Your task to perform on an android device: turn off improve location accuracy Image 0: 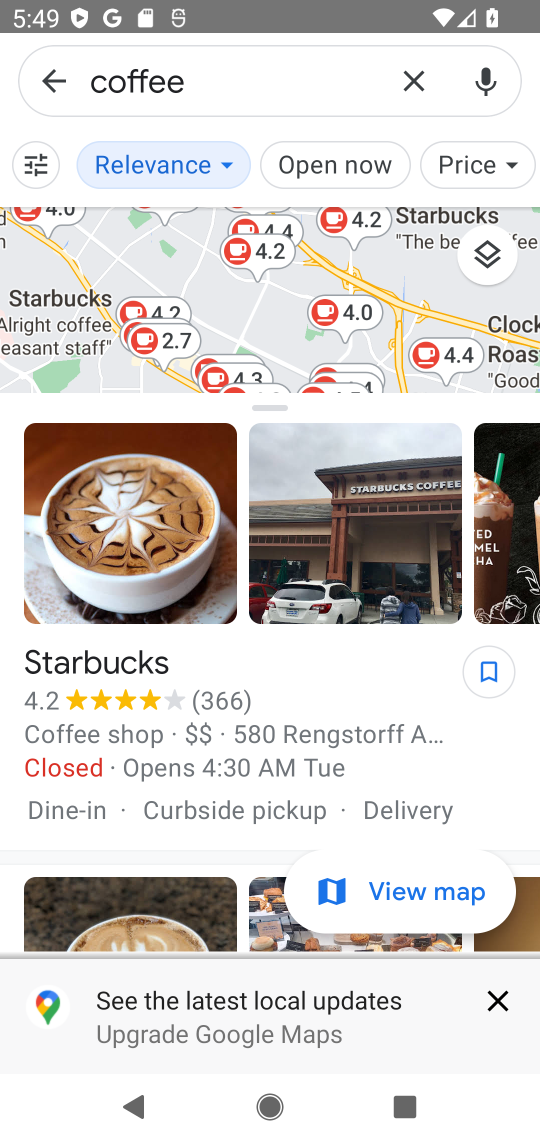
Step 0: press home button
Your task to perform on an android device: turn off improve location accuracy Image 1: 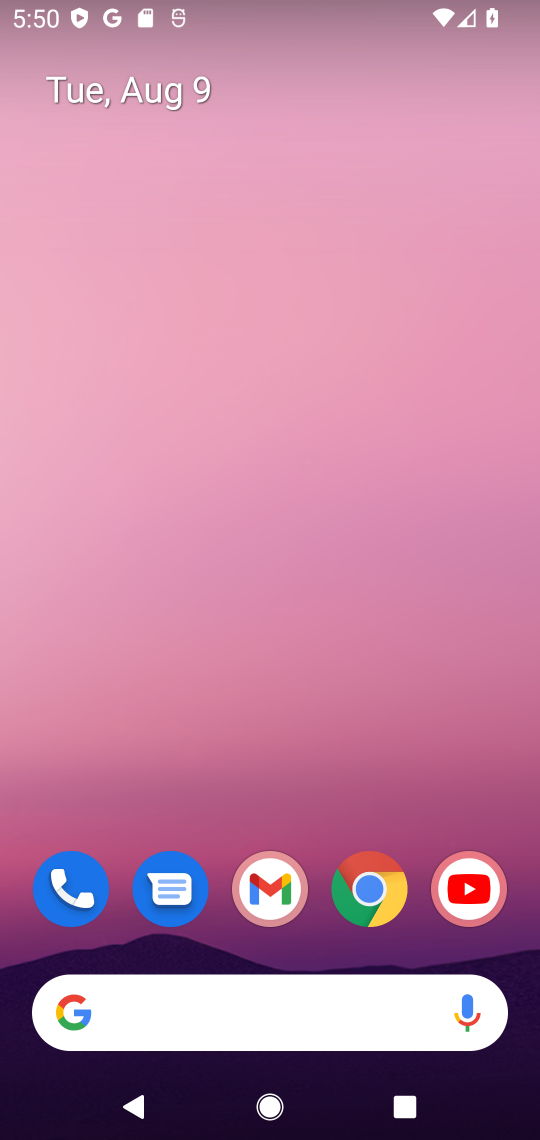
Step 1: drag from (245, 1011) to (275, 414)
Your task to perform on an android device: turn off improve location accuracy Image 2: 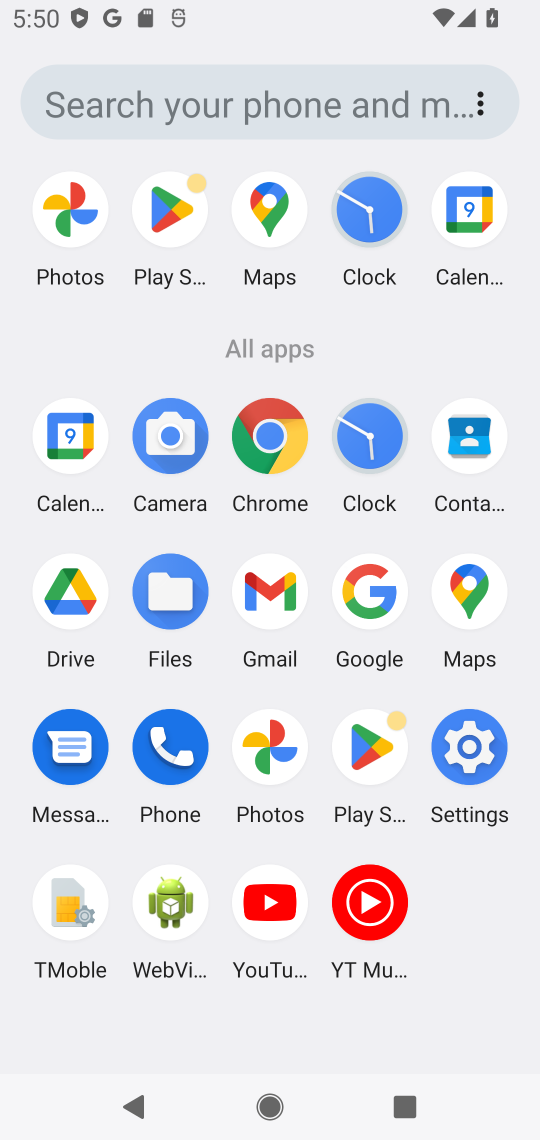
Step 2: click (450, 741)
Your task to perform on an android device: turn off improve location accuracy Image 3: 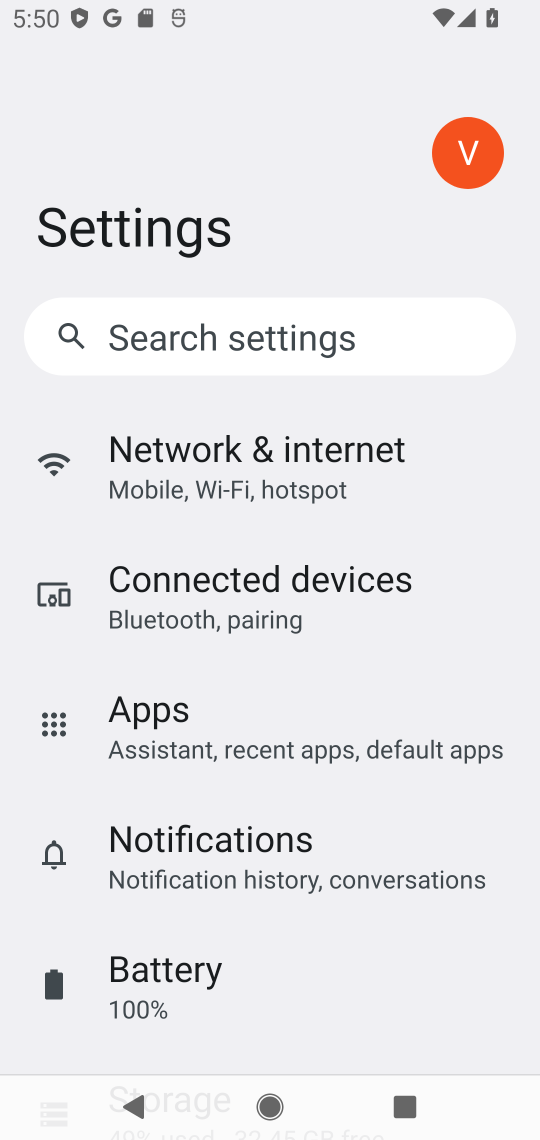
Step 3: drag from (282, 980) to (284, 158)
Your task to perform on an android device: turn off improve location accuracy Image 4: 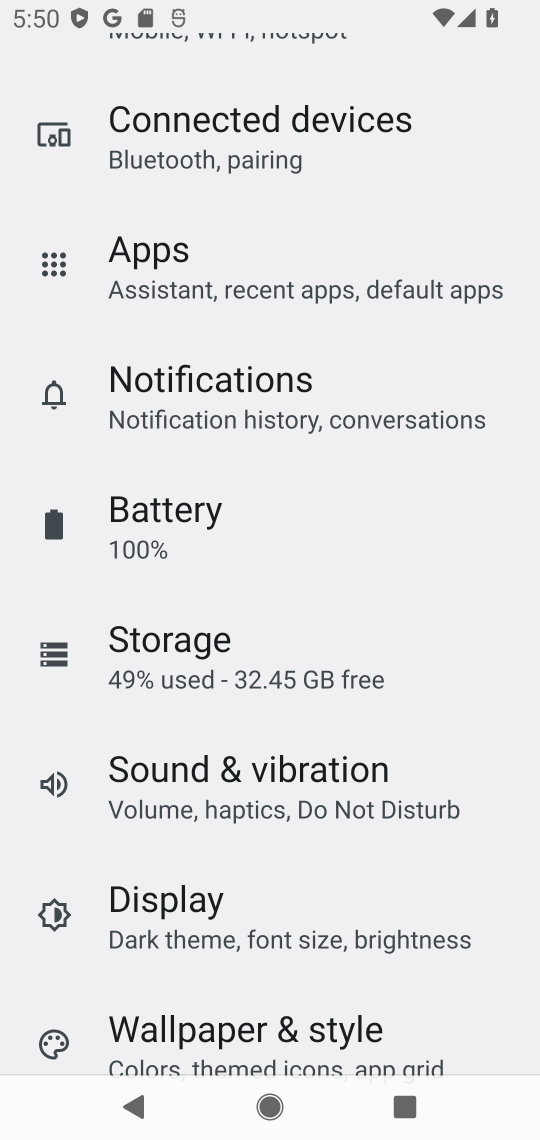
Step 4: drag from (238, 879) to (260, 2)
Your task to perform on an android device: turn off improve location accuracy Image 5: 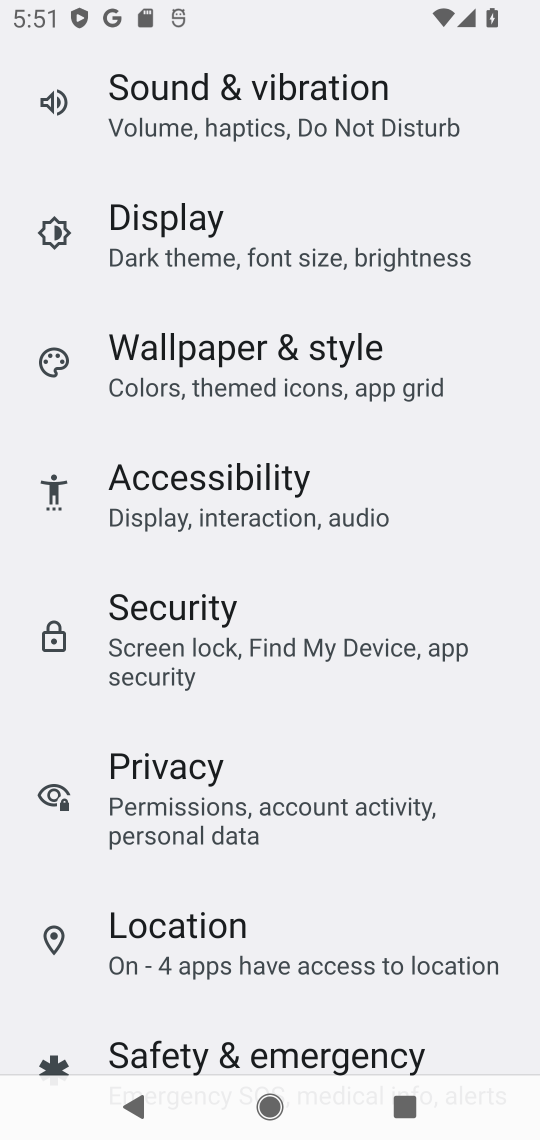
Step 5: click (253, 930)
Your task to perform on an android device: turn off improve location accuracy Image 6: 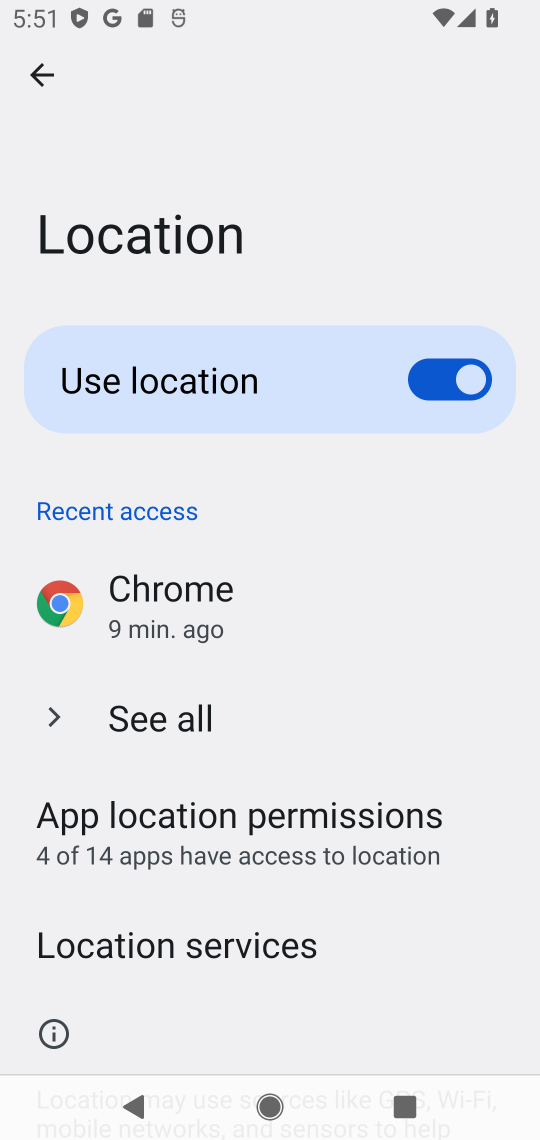
Step 6: drag from (258, 959) to (276, 481)
Your task to perform on an android device: turn off improve location accuracy Image 7: 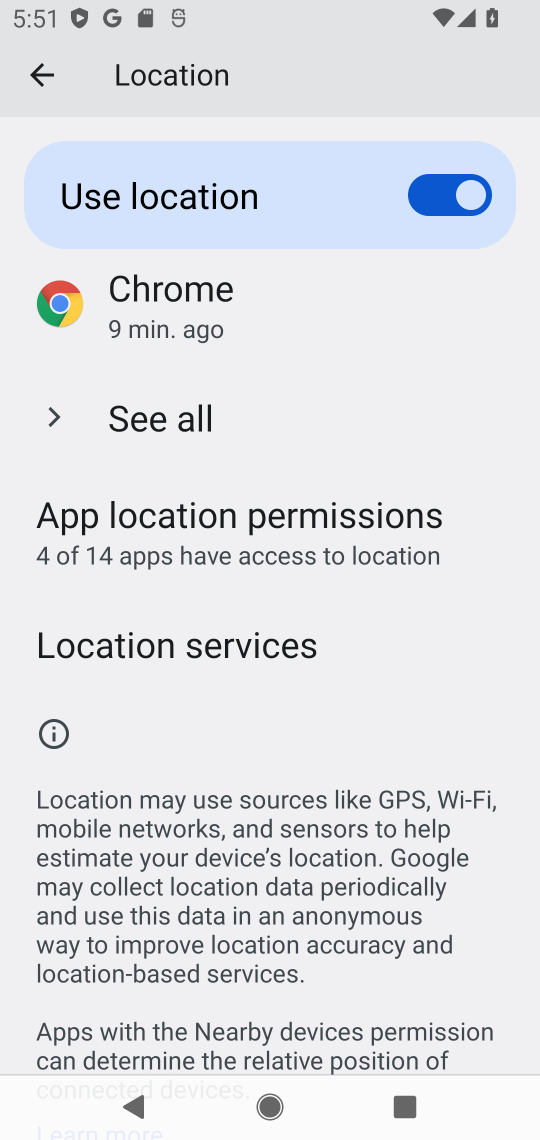
Step 7: click (201, 653)
Your task to perform on an android device: turn off improve location accuracy Image 8: 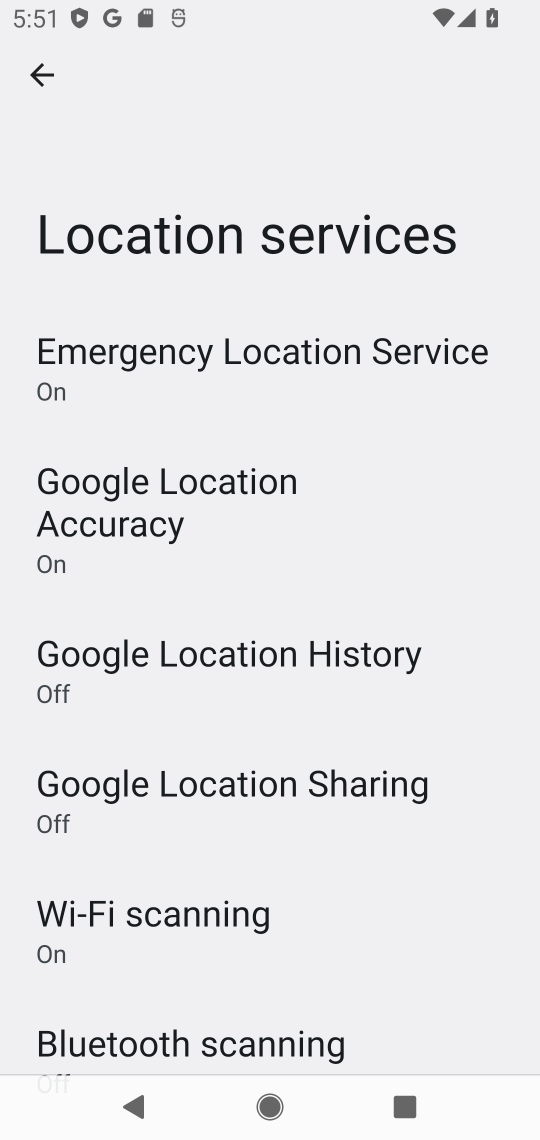
Step 8: click (213, 549)
Your task to perform on an android device: turn off improve location accuracy Image 9: 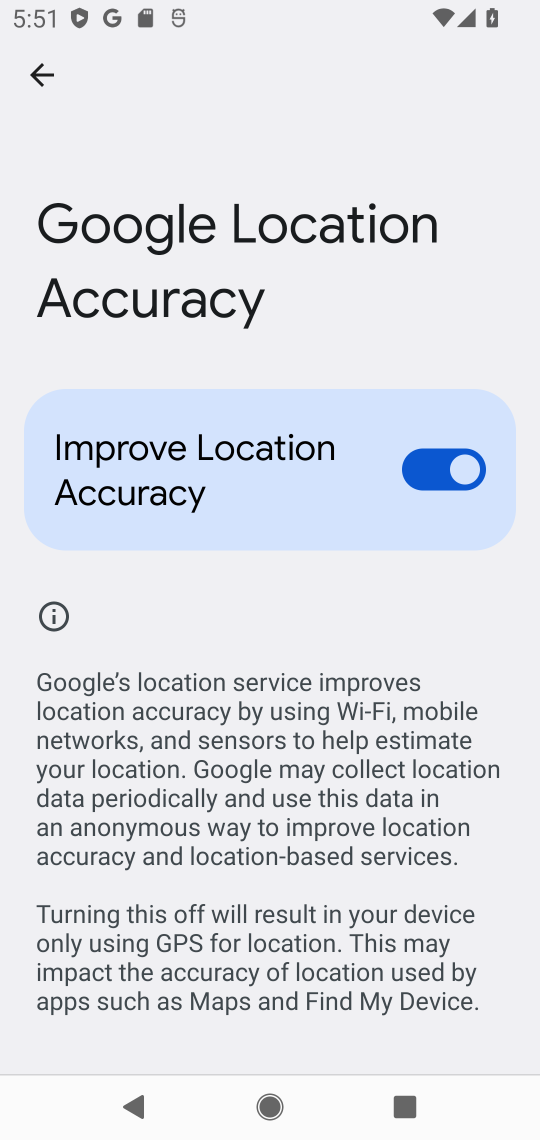
Step 9: click (416, 474)
Your task to perform on an android device: turn off improve location accuracy Image 10: 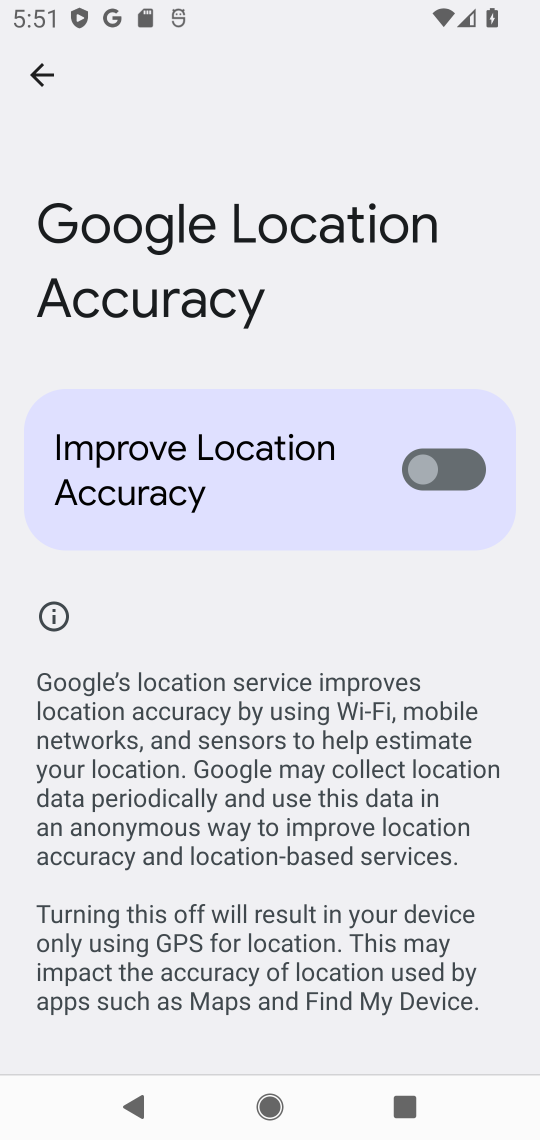
Step 10: task complete